Your task to perform on an android device: find snoozed emails in the gmail app Image 0: 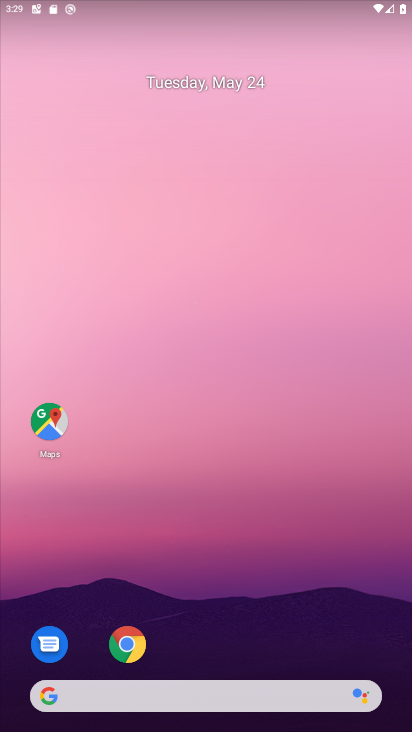
Step 0: drag from (275, 664) to (258, 162)
Your task to perform on an android device: find snoozed emails in the gmail app Image 1: 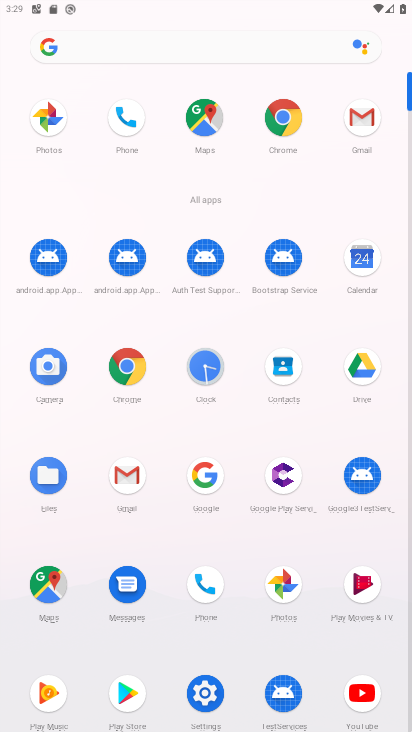
Step 1: click (369, 137)
Your task to perform on an android device: find snoozed emails in the gmail app Image 2: 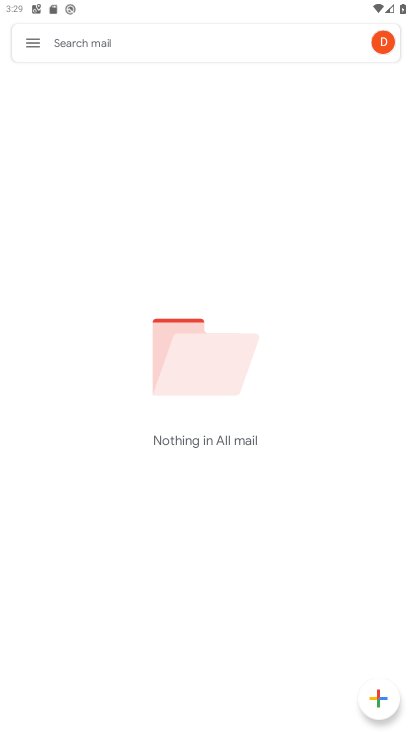
Step 2: click (20, 36)
Your task to perform on an android device: find snoozed emails in the gmail app Image 3: 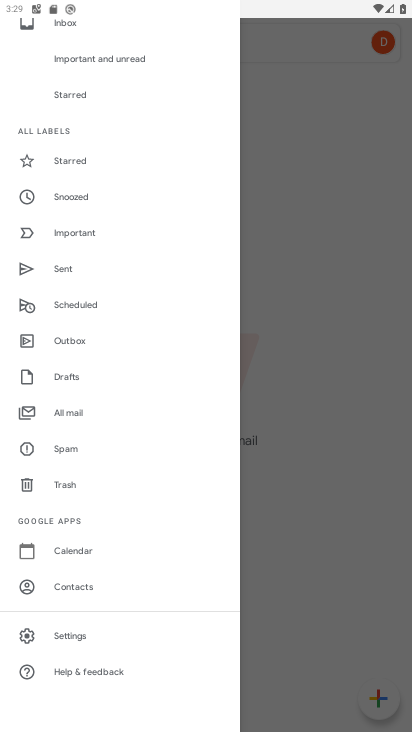
Step 3: click (34, 202)
Your task to perform on an android device: find snoozed emails in the gmail app Image 4: 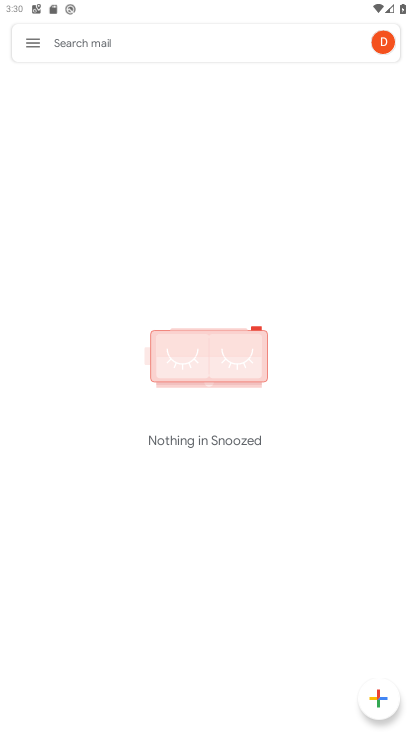
Step 4: task complete